Your task to perform on an android device: turn on showing notifications on the lock screen Image 0: 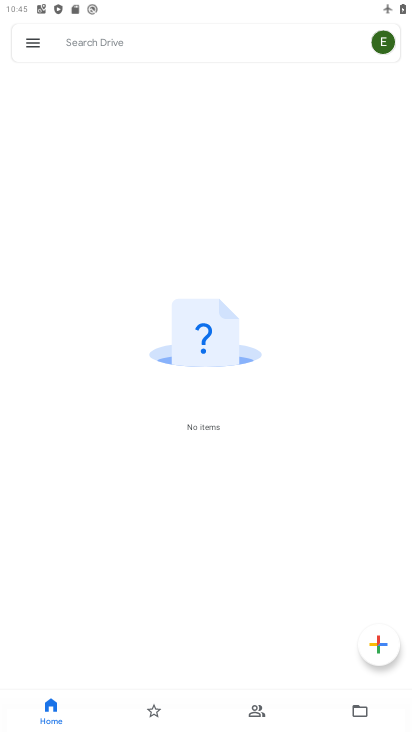
Step 0: press home button
Your task to perform on an android device: turn on showing notifications on the lock screen Image 1: 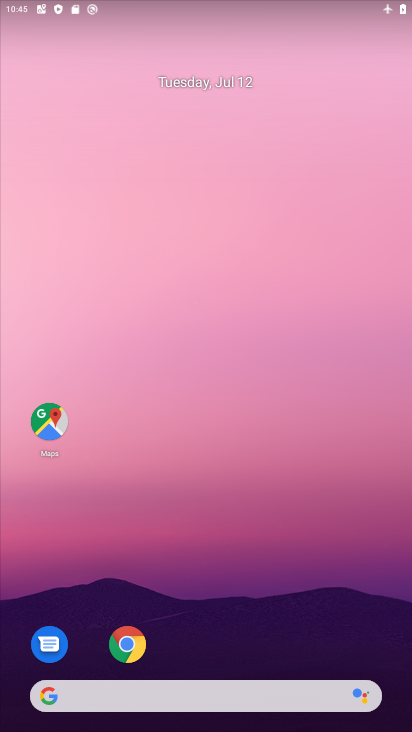
Step 1: drag from (311, 624) to (324, 69)
Your task to perform on an android device: turn on showing notifications on the lock screen Image 2: 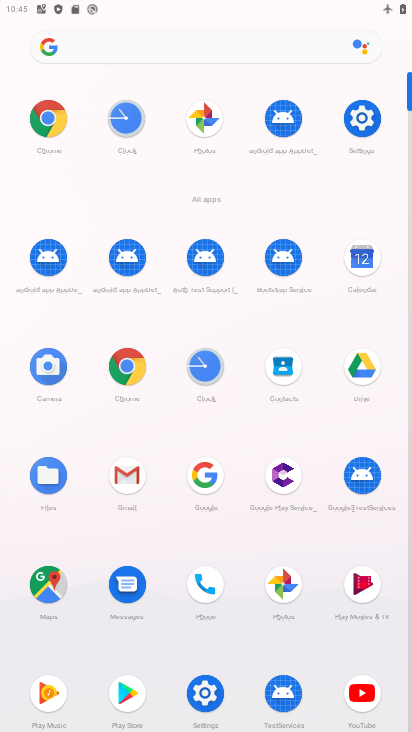
Step 2: click (363, 115)
Your task to perform on an android device: turn on showing notifications on the lock screen Image 3: 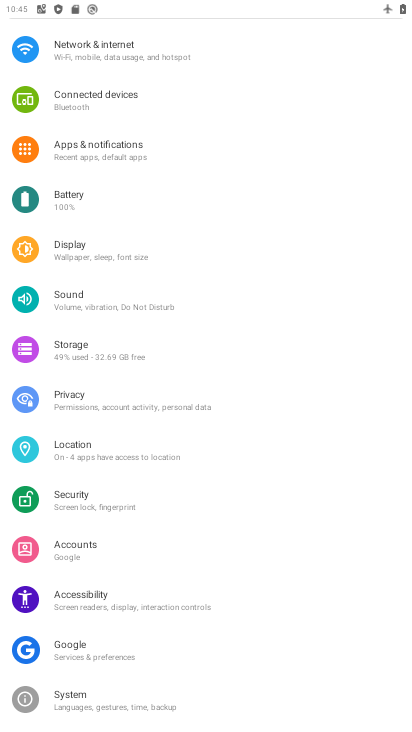
Step 3: click (117, 160)
Your task to perform on an android device: turn on showing notifications on the lock screen Image 4: 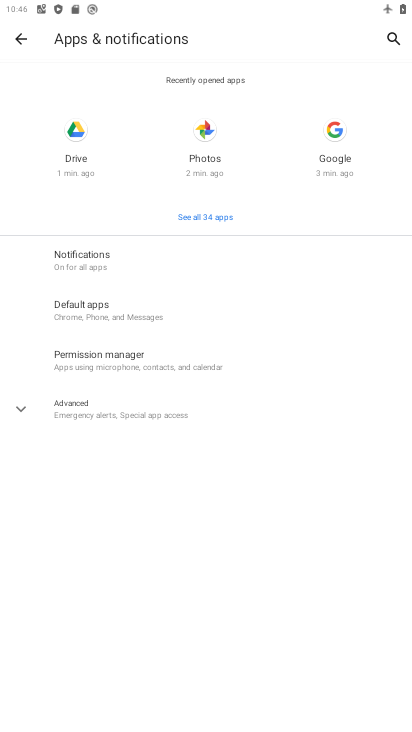
Step 4: click (83, 269)
Your task to perform on an android device: turn on showing notifications on the lock screen Image 5: 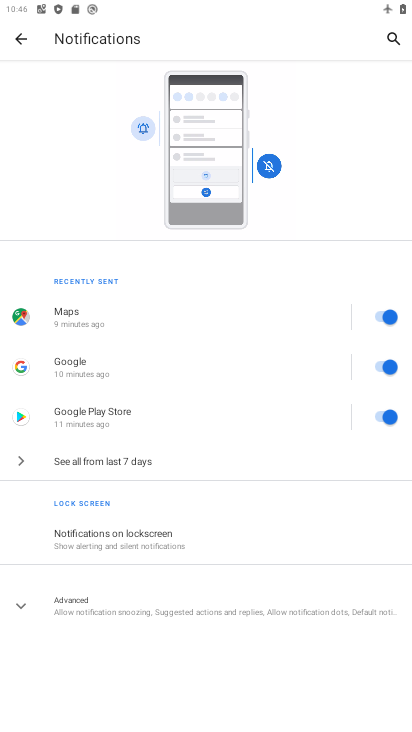
Step 5: click (144, 538)
Your task to perform on an android device: turn on showing notifications on the lock screen Image 6: 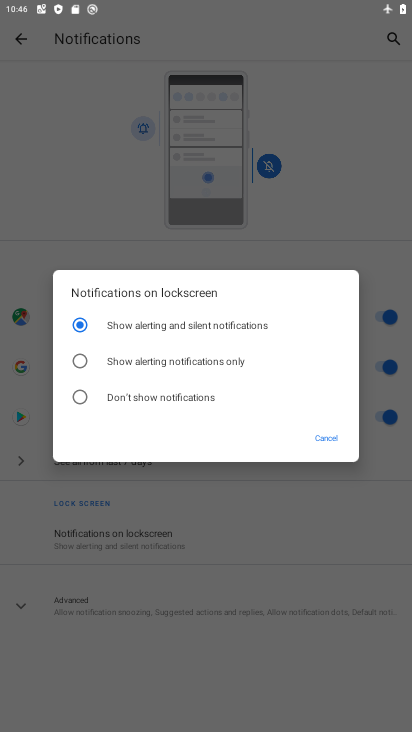
Step 6: click (81, 367)
Your task to perform on an android device: turn on showing notifications on the lock screen Image 7: 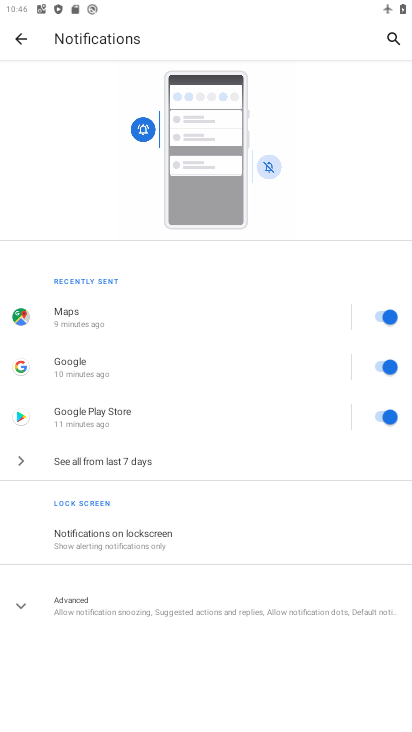
Step 7: task complete